Your task to perform on an android device: Open internet settings Image 0: 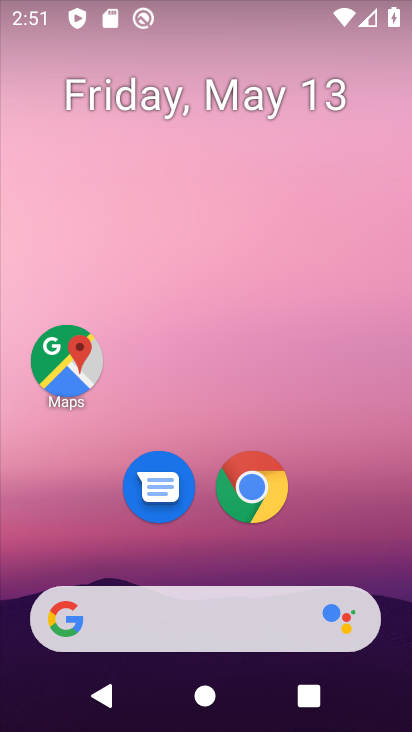
Step 0: drag from (349, 510) to (384, 36)
Your task to perform on an android device: Open internet settings Image 1: 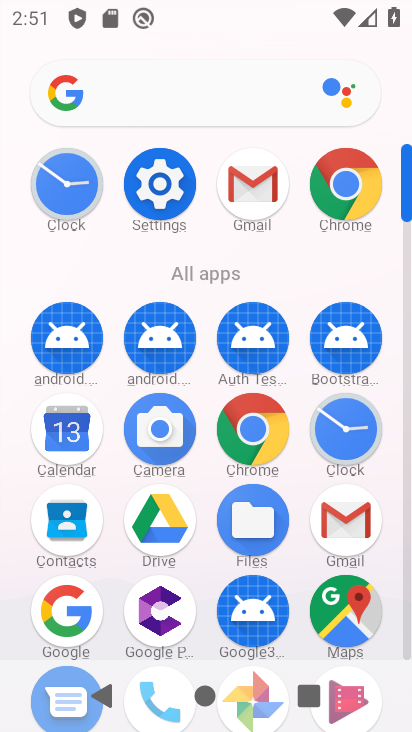
Step 1: click (138, 206)
Your task to perform on an android device: Open internet settings Image 2: 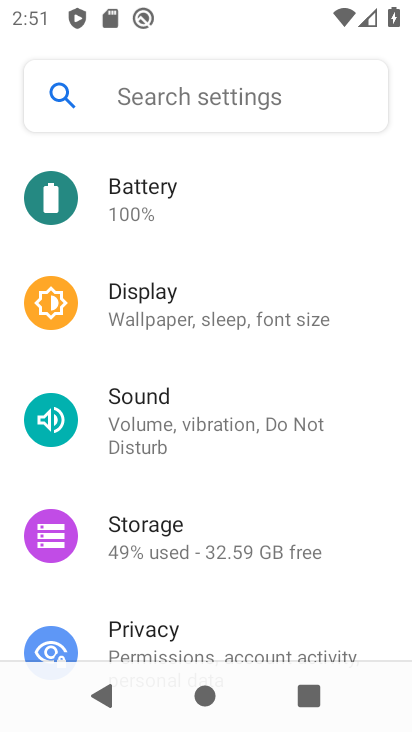
Step 2: drag from (205, 212) to (235, 568)
Your task to perform on an android device: Open internet settings Image 3: 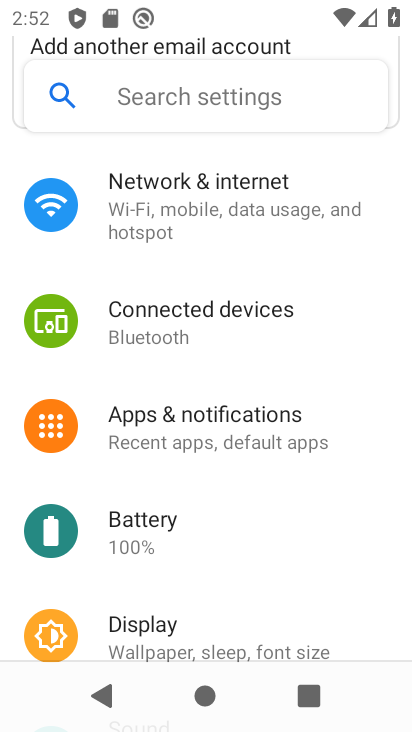
Step 3: click (215, 183)
Your task to perform on an android device: Open internet settings Image 4: 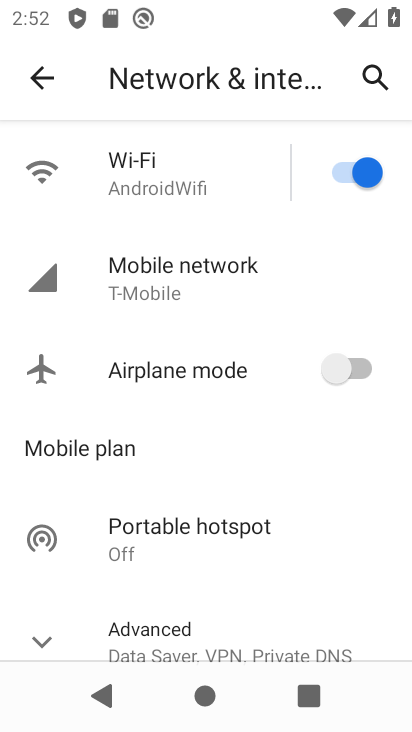
Step 4: click (157, 269)
Your task to perform on an android device: Open internet settings Image 5: 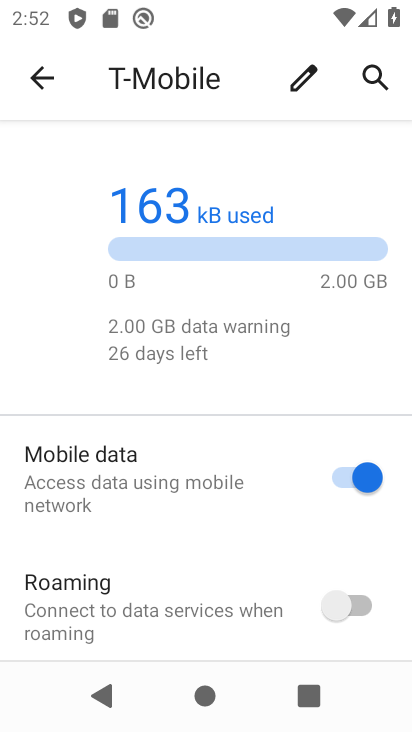
Step 5: task complete